Your task to perform on an android device: change keyboard looks Image 0: 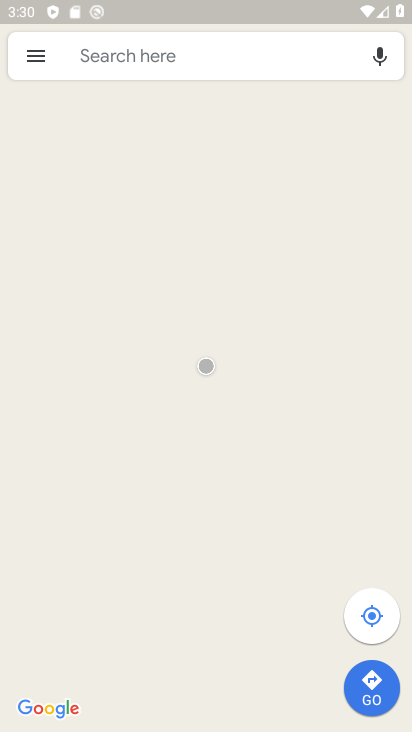
Step 0: press home button
Your task to perform on an android device: change keyboard looks Image 1: 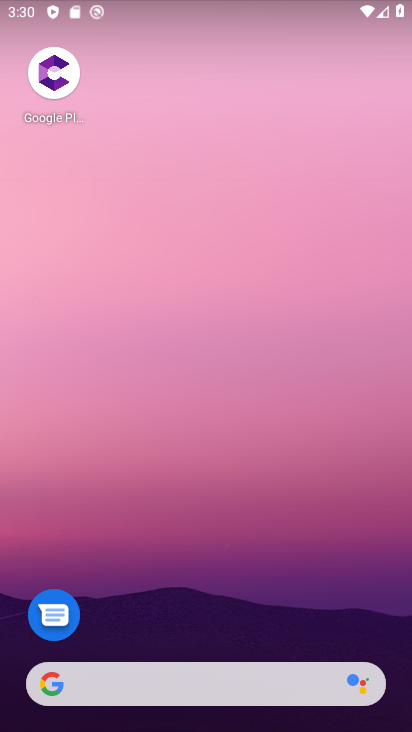
Step 1: drag from (72, 727) to (206, 159)
Your task to perform on an android device: change keyboard looks Image 2: 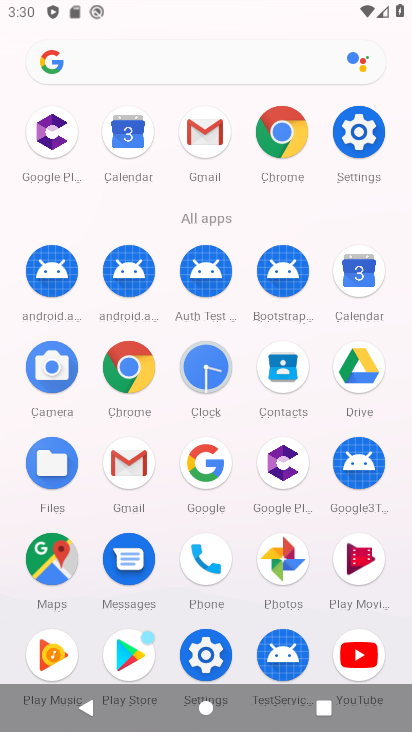
Step 2: click (213, 662)
Your task to perform on an android device: change keyboard looks Image 3: 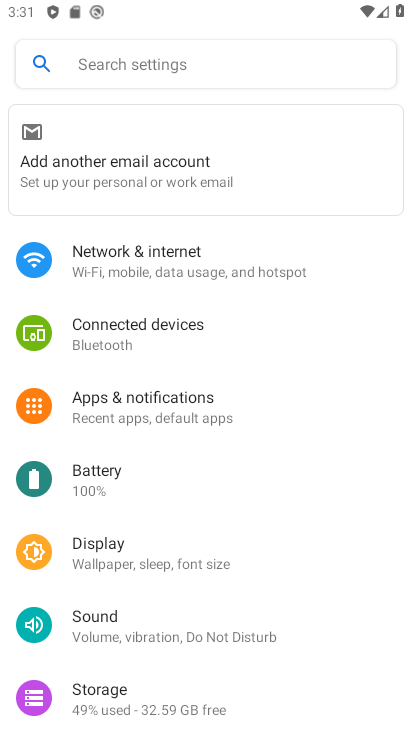
Step 3: drag from (231, 652) to (229, 215)
Your task to perform on an android device: change keyboard looks Image 4: 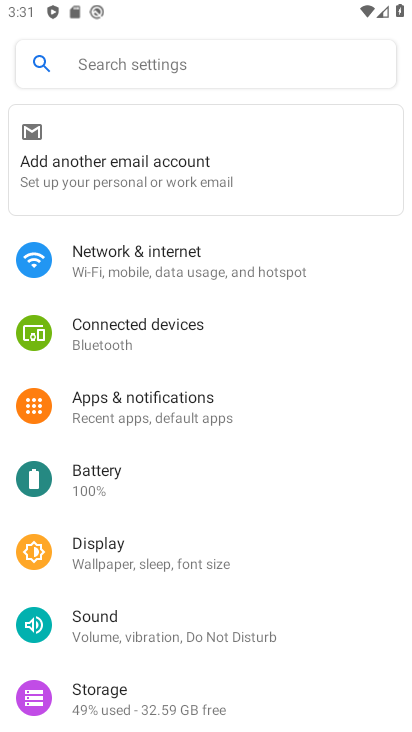
Step 4: drag from (345, 705) to (390, 142)
Your task to perform on an android device: change keyboard looks Image 5: 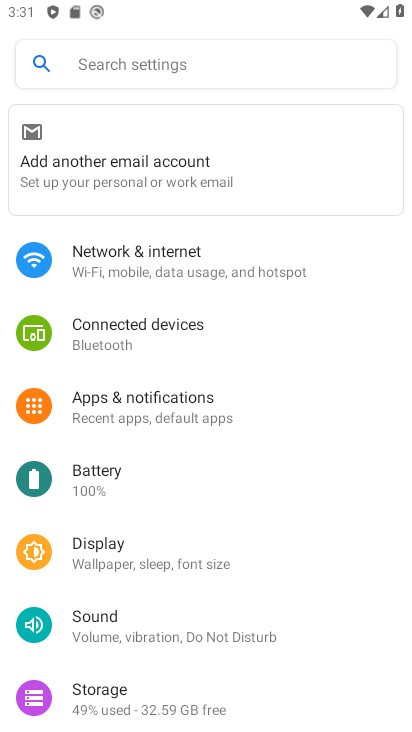
Step 5: drag from (291, 698) to (221, 137)
Your task to perform on an android device: change keyboard looks Image 6: 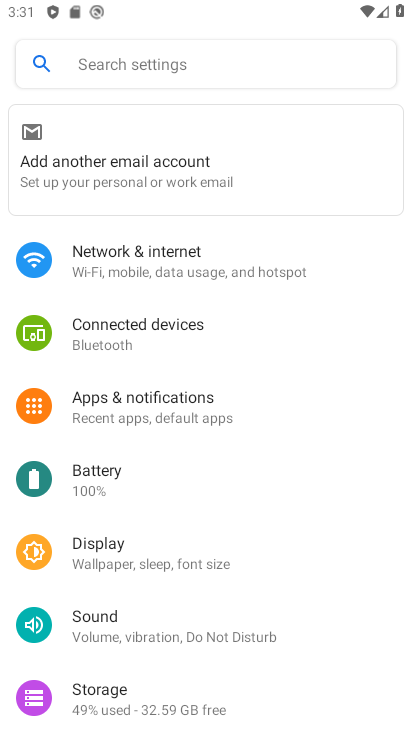
Step 6: drag from (300, 692) to (217, 165)
Your task to perform on an android device: change keyboard looks Image 7: 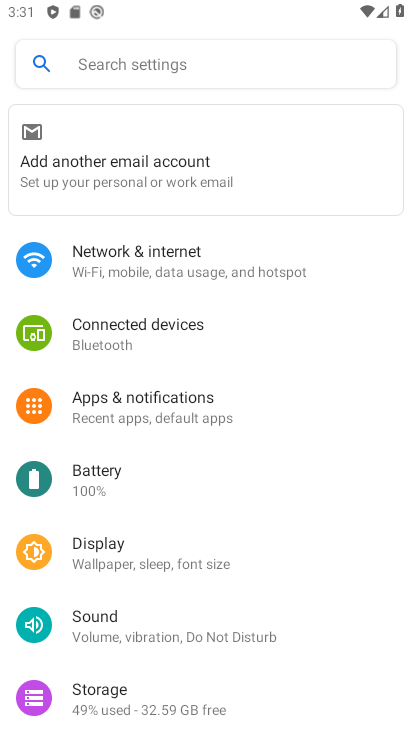
Step 7: drag from (339, 697) to (315, 127)
Your task to perform on an android device: change keyboard looks Image 8: 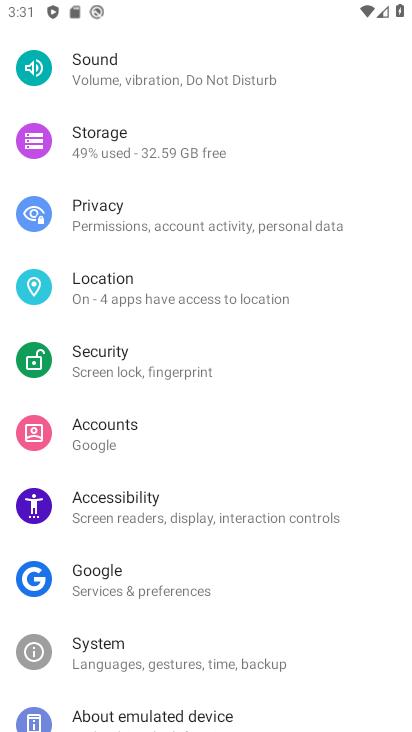
Step 8: click (120, 658)
Your task to perform on an android device: change keyboard looks Image 9: 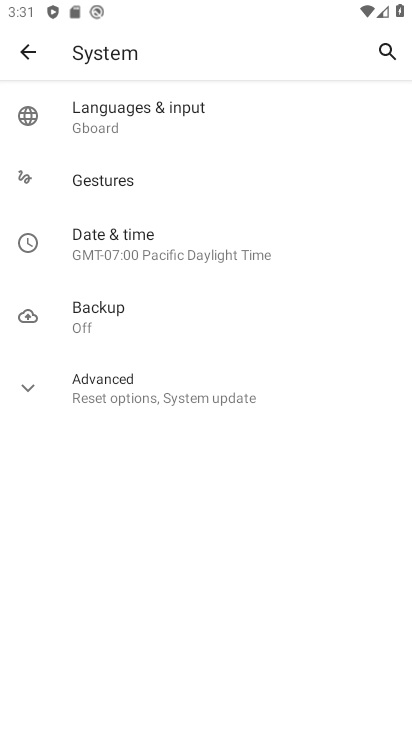
Step 9: click (111, 132)
Your task to perform on an android device: change keyboard looks Image 10: 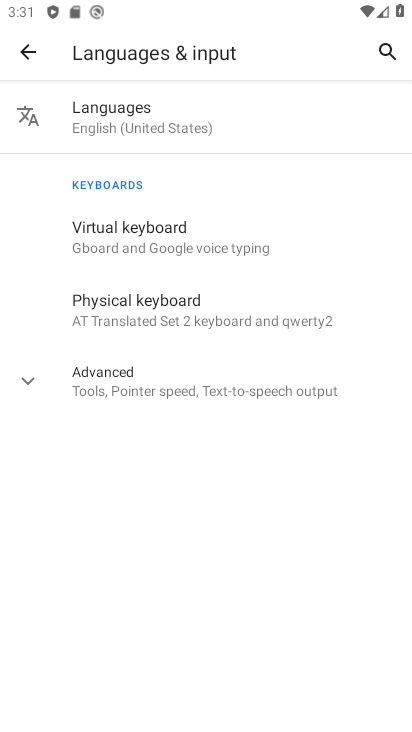
Step 10: click (99, 256)
Your task to perform on an android device: change keyboard looks Image 11: 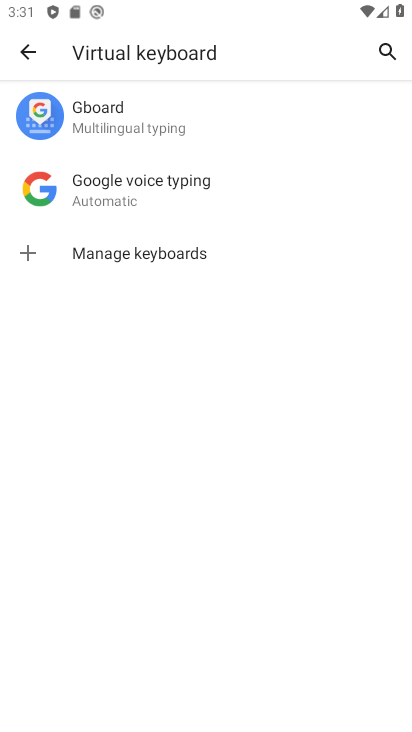
Step 11: click (94, 138)
Your task to perform on an android device: change keyboard looks Image 12: 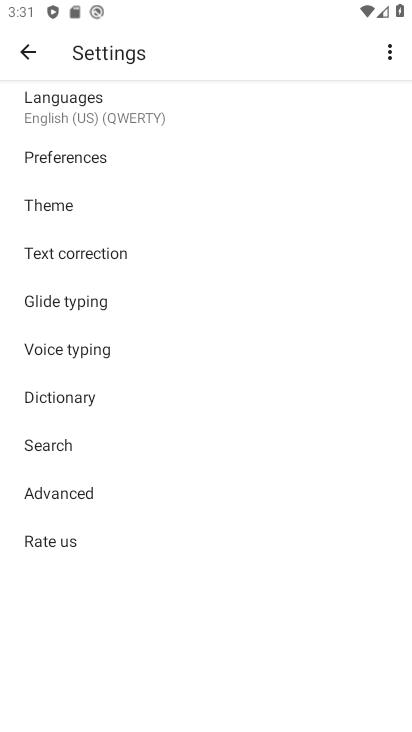
Step 12: click (59, 208)
Your task to perform on an android device: change keyboard looks Image 13: 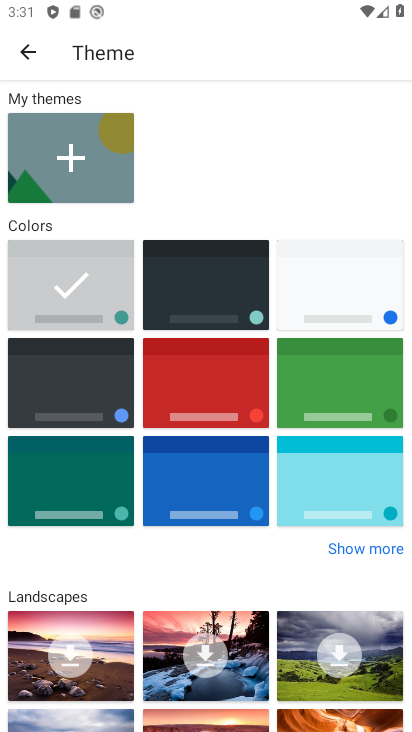
Step 13: click (200, 309)
Your task to perform on an android device: change keyboard looks Image 14: 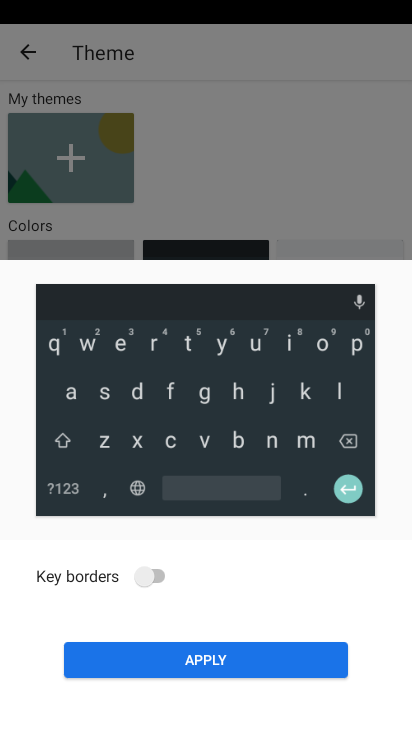
Step 14: click (221, 668)
Your task to perform on an android device: change keyboard looks Image 15: 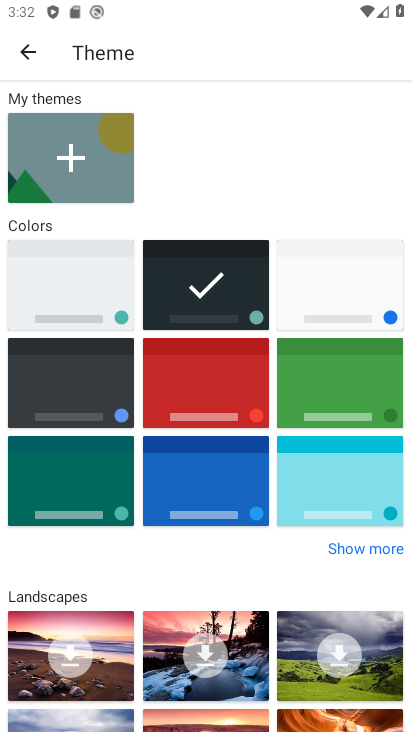
Step 15: task complete